Your task to perform on an android device: Go to Google maps Image 0: 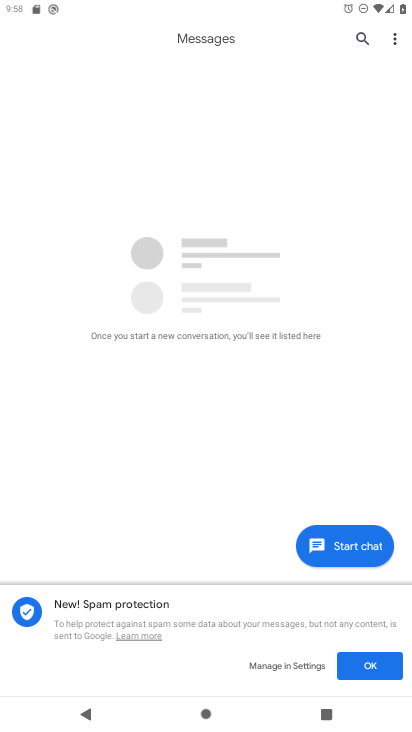
Step 0: press home button
Your task to perform on an android device: Go to Google maps Image 1: 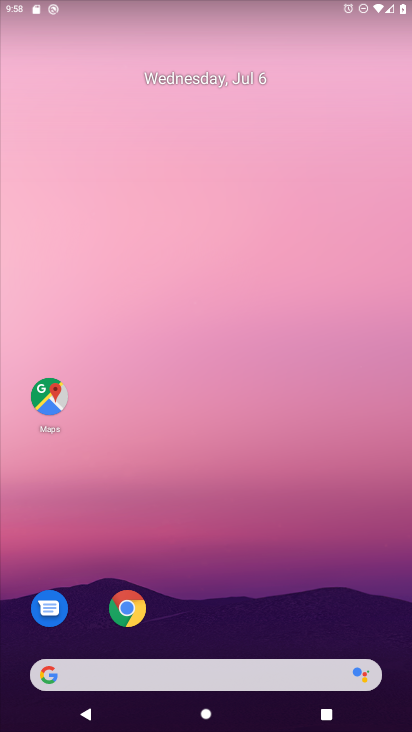
Step 1: click (52, 395)
Your task to perform on an android device: Go to Google maps Image 2: 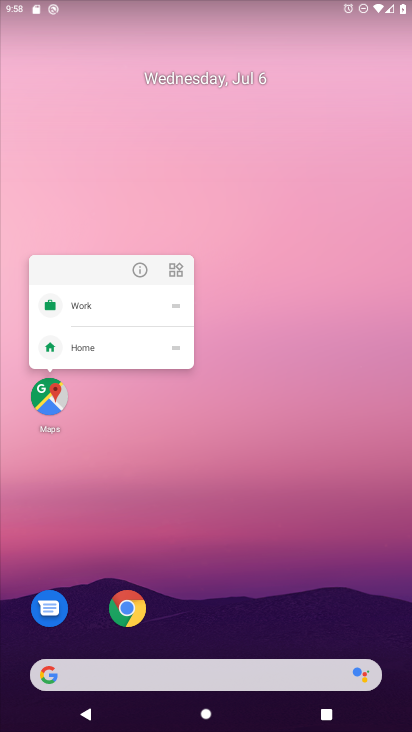
Step 2: click (52, 395)
Your task to perform on an android device: Go to Google maps Image 3: 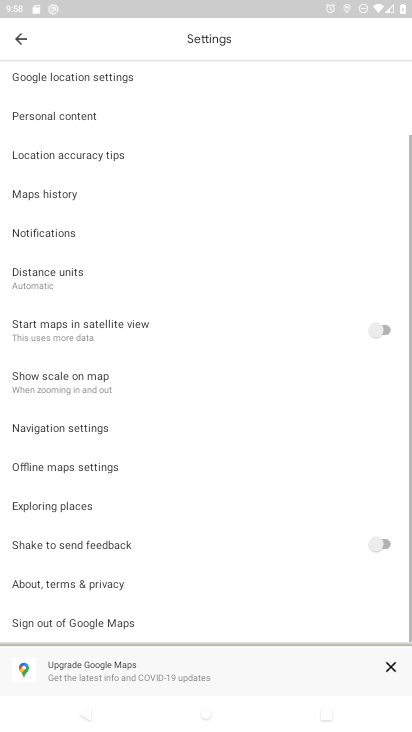
Step 3: drag from (137, 627) to (180, 260)
Your task to perform on an android device: Go to Google maps Image 4: 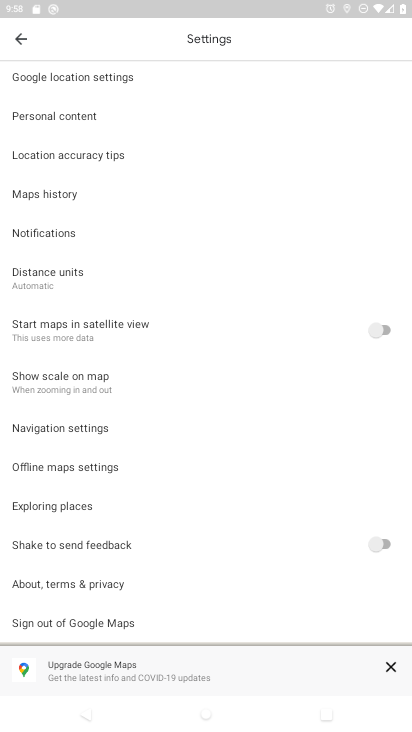
Step 4: drag from (63, 627) to (85, 300)
Your task to perform on an android device: Go to Google maps Image 5: 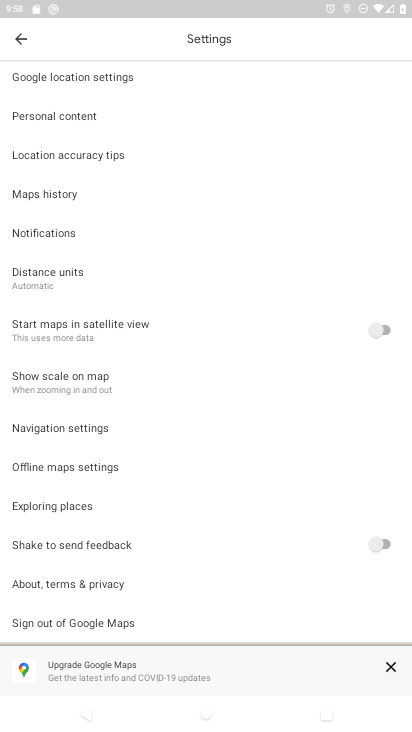
Step 5: click (17, 37)
Your task to perform on an android device: Go to Google maps Image 6: 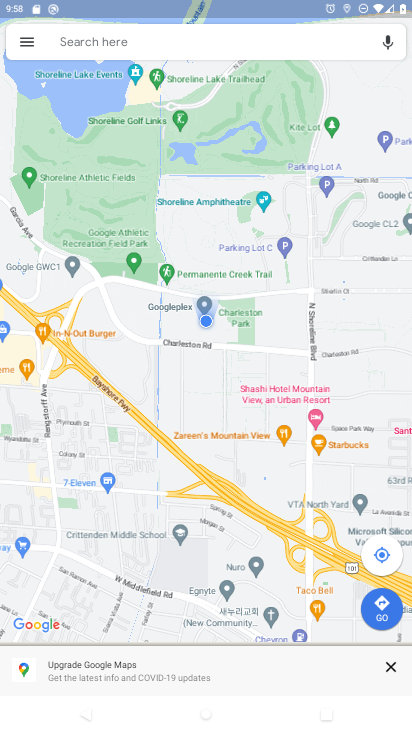
Step 6: task complete